Your task to perform on an android device: Turn off the flashlight Image 0: 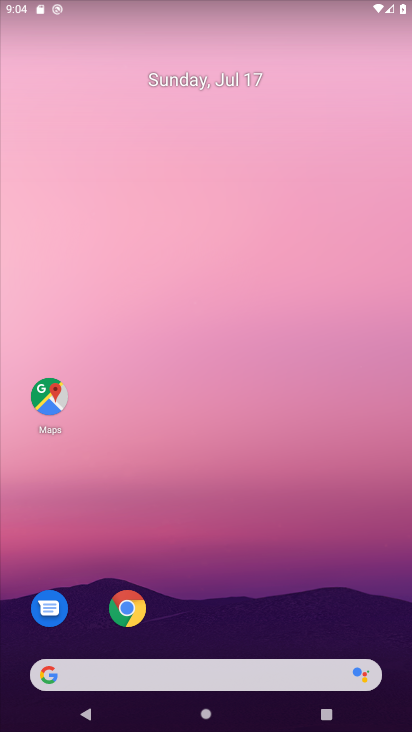
Step 0: drag from (271, 404) to (265, 129)
Your task to perform on an android device: Turn off the flashlight Image 1: 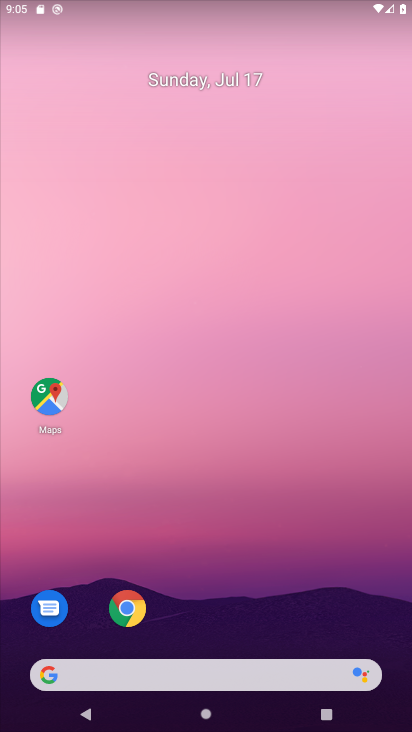
Step 1: task complete